Your task to perform on an android device: toggle wifi Image 0: 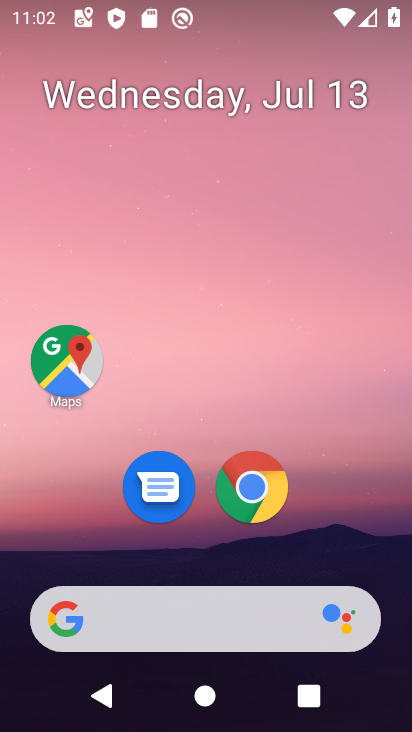
Step 0: drag from (207, 579) to (134, 13)
Your task to perform on an android device: toggle wifi Image 1: 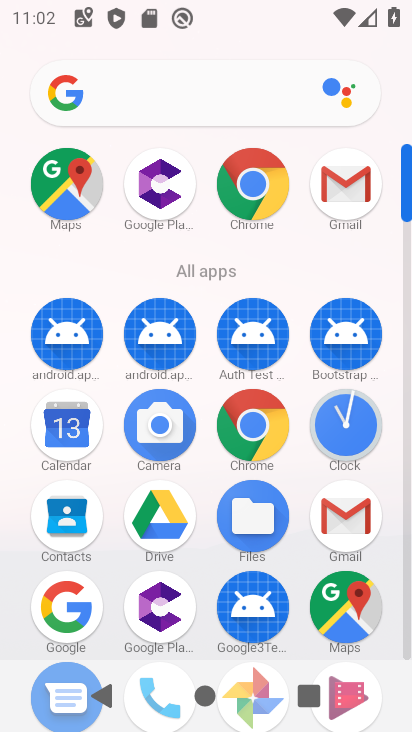
Step 1: drag from (210, 636) to (196, 260)
Your task to perform on an android device: toggle wifi Image 2: 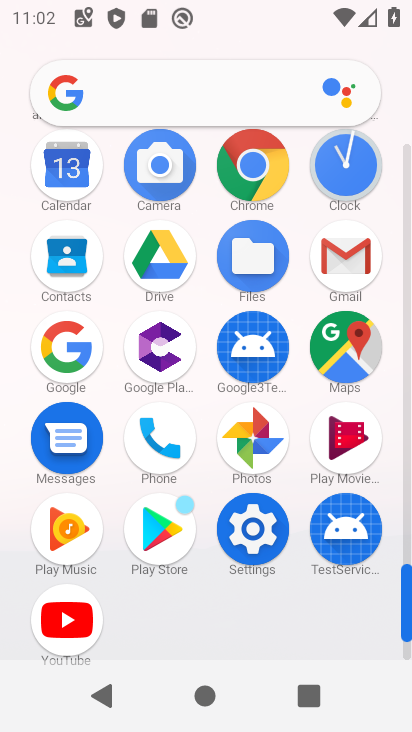
Step 2: click (273, 529)
Your task to perform on an android device: toggle wifi Image 3: 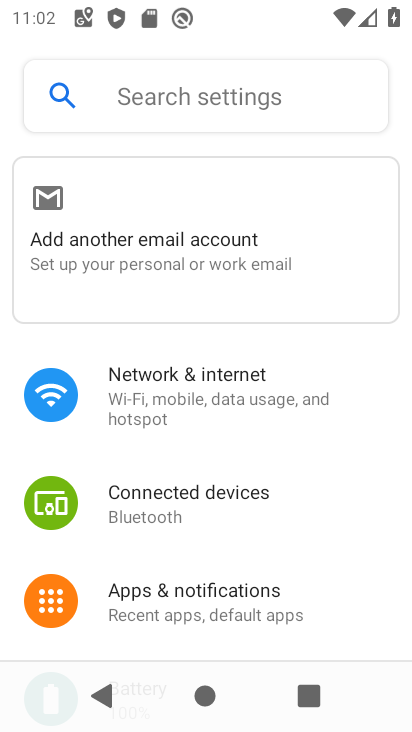
Step 3: click (169, 376)
Your task to perform on an android device: toggle wifi Image 4: 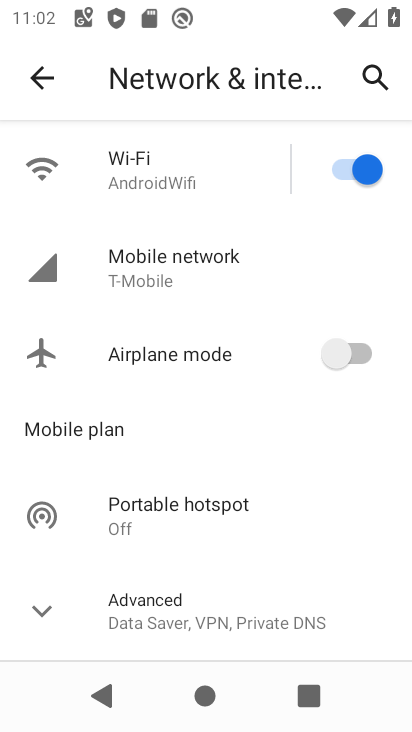
Step 4: click (367, 170)
Your task to perform on an android device: toggle wifi Image 5: 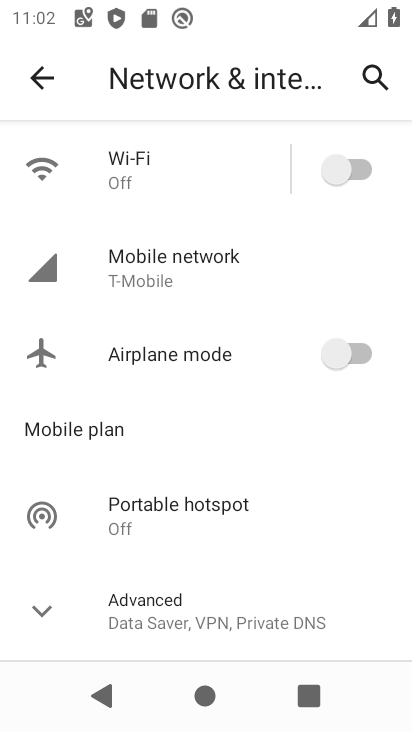
Step 5: task complete